Your task to perform on an android device: What is the recent news? Image 0: 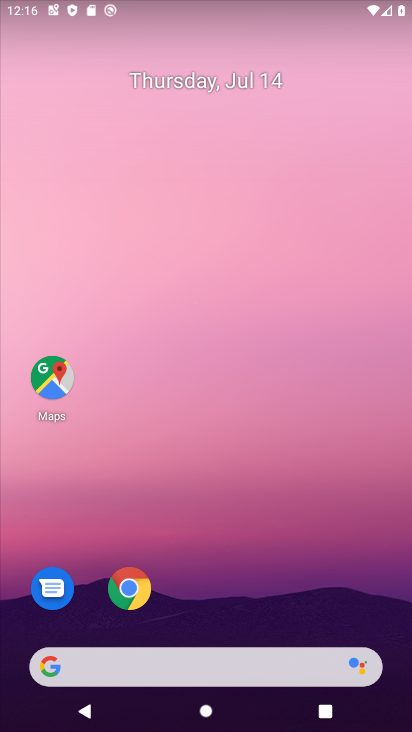
Step 0: click (236, 656)
Your task to perform on an android device: What is the recent news? Image 1: 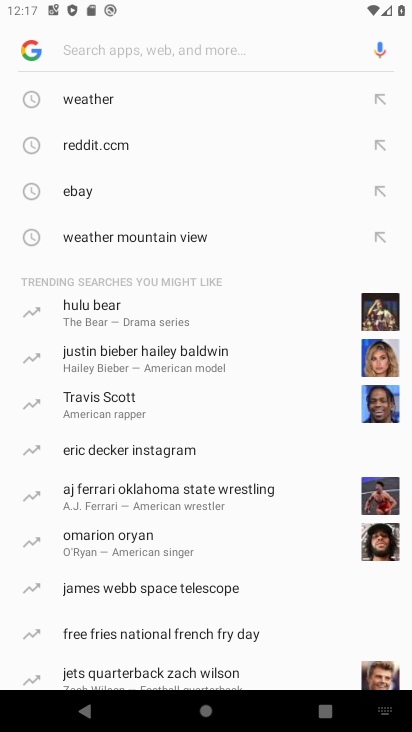
Step 1: type "news"
Your task to perform on an android device: What is the recent news? Image 2: 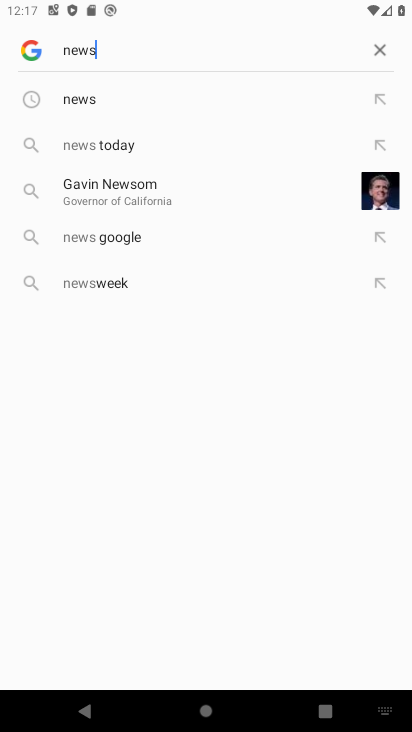
Step 2: click (188, 88)
Your task to perform on an android device: What is the recent news? Image 3: 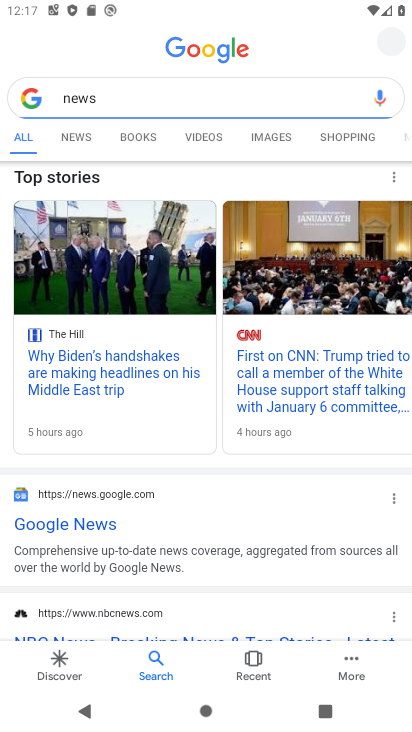
Step 3: task complete